Your task to perform on an android device: toggle sleep mode Image 0: 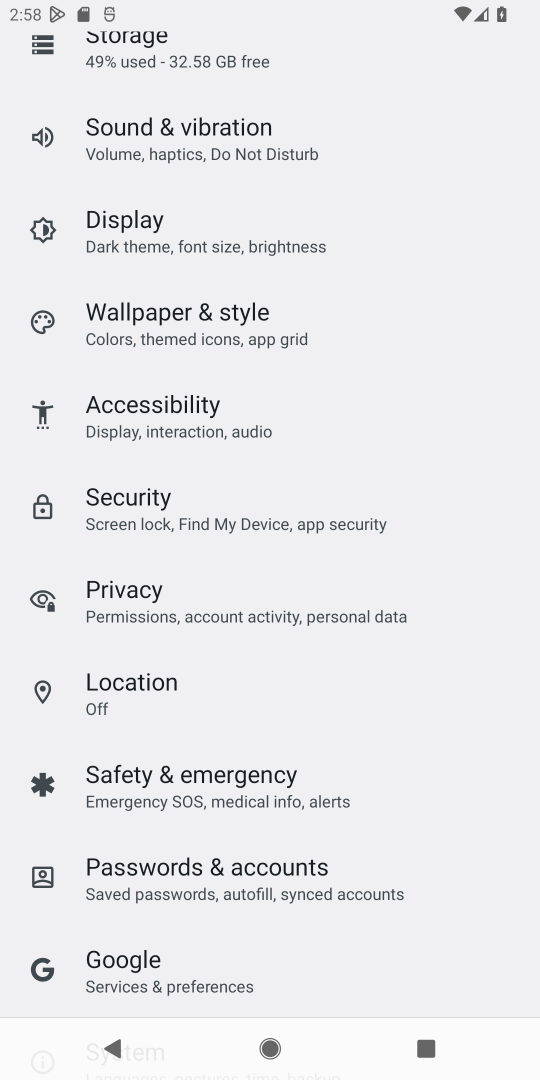
Step 0: task complete